Your task to perform on an android device: Go to eBay Image 0: 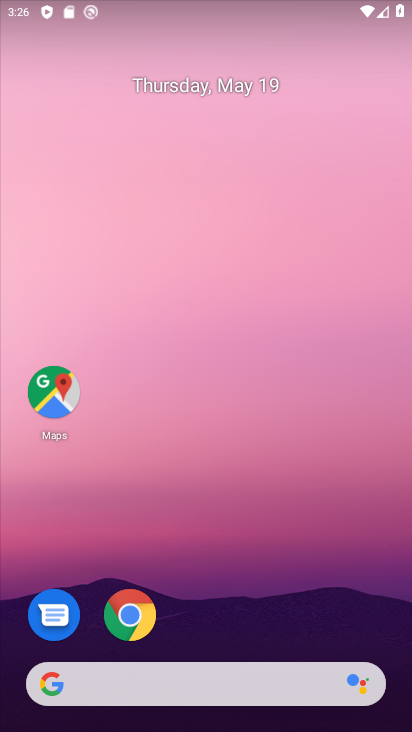
Step 0: drag from (286, 686) to (180, 96)
Your task to perform on an android device: Go to eBay Image 1: 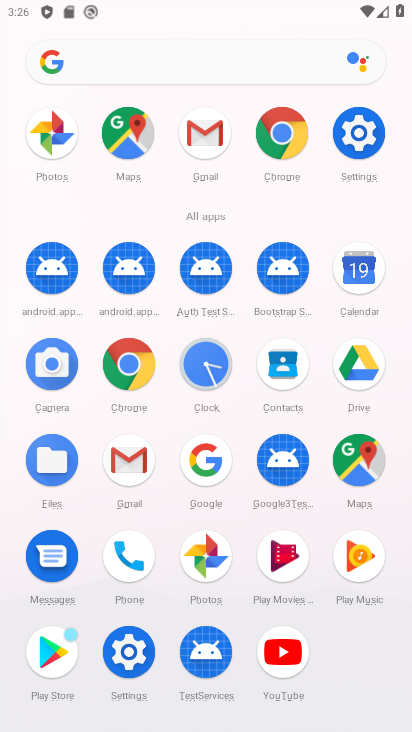
Step 1: click (274, 133)
Your task to perform on an android device: Go to eBay Image 2: 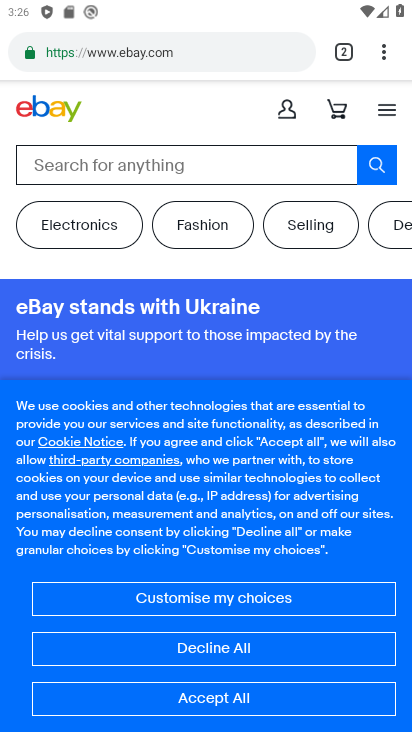
Step 2: task complete